Your task to perform on an android device: toggle improve location accuracy Image 0: 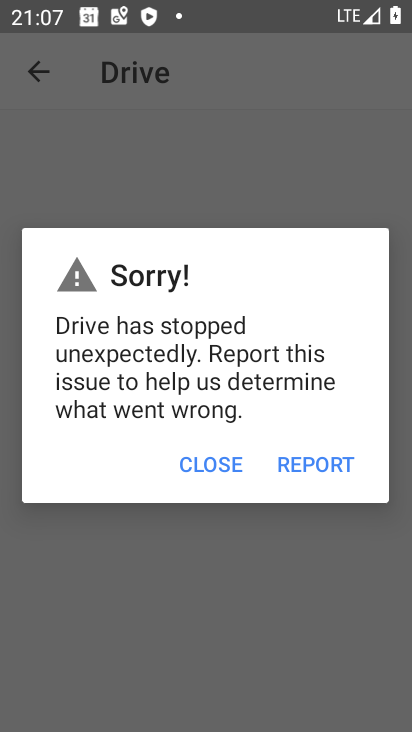
Step 0: press home button
Your task to perform on an android device: toggle improve location accuracy Image 1: 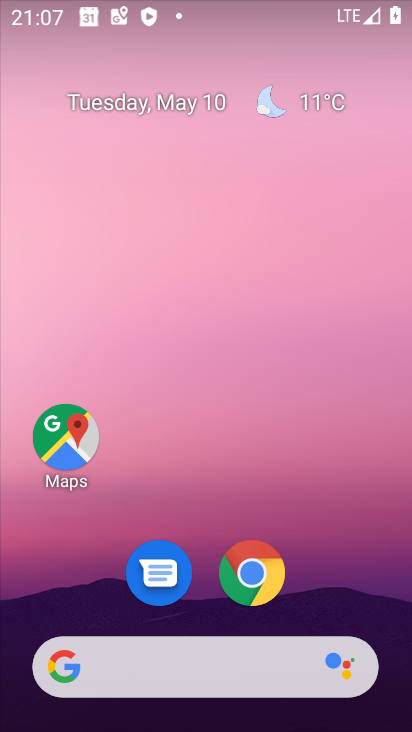
Step 1: drag from (371, 605) to (395, 10)
Your task to perform on an android device: toggle improve location accuracy Image 2: 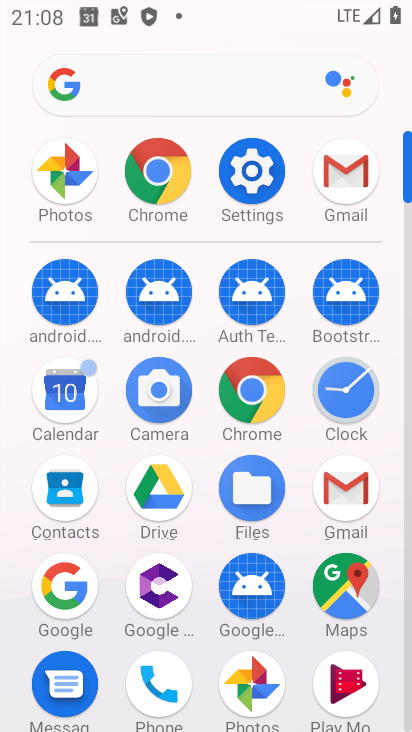
Step 2: click (253, 177)
Your task to perform on an android device: toggle improve location accuracy Image 3: 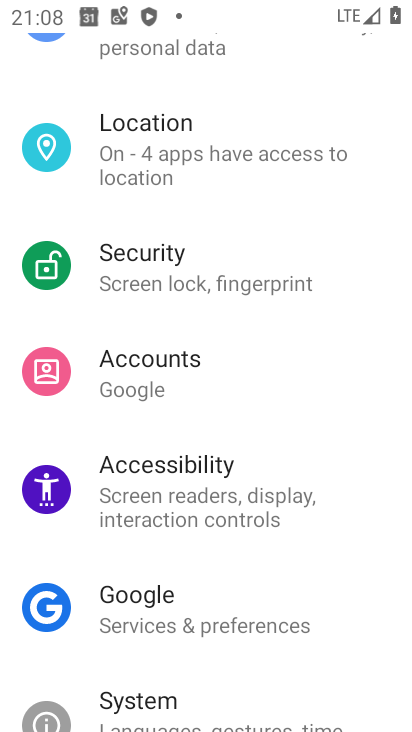
Step 3: click (125, 176)
Your task to perform on an android device: toggle improve location accuracy Image 4: 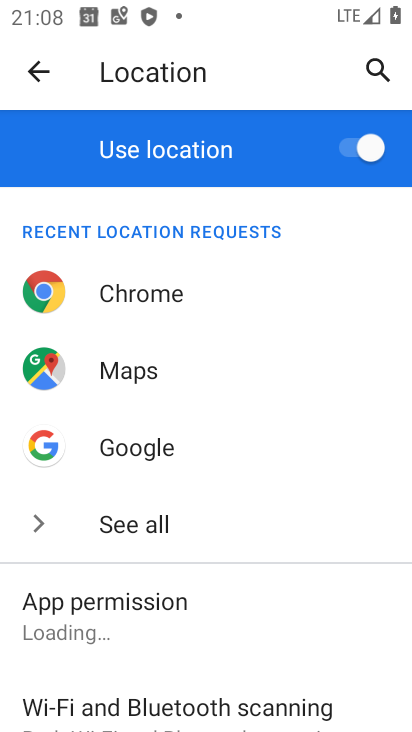
Step 4: drag from (230, 582) to (230, 232)
Your task to perform on an android device: toggle improve location accuracy Image 5: 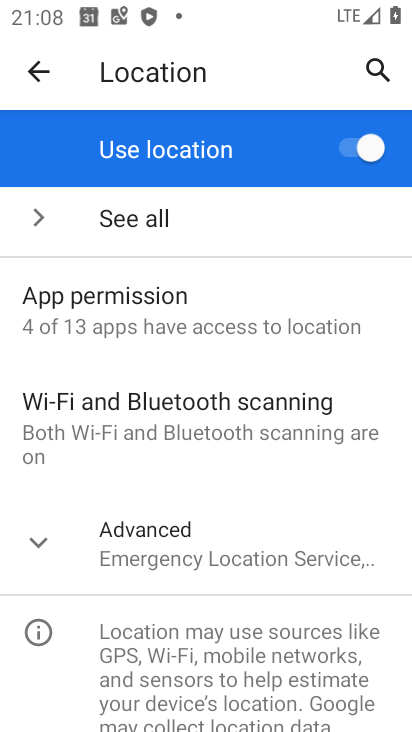
Step 5: click (42, 555)
Your task to perform on an android device: toggle improve location accuracy Image 6: 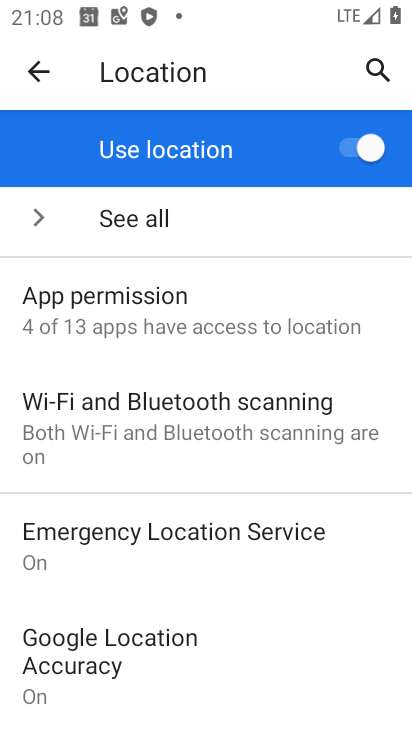
Step 6: drag from (218, 641) to (211, 398)
Your task to perform on an android device: toggle improve location accuracy Image 7: 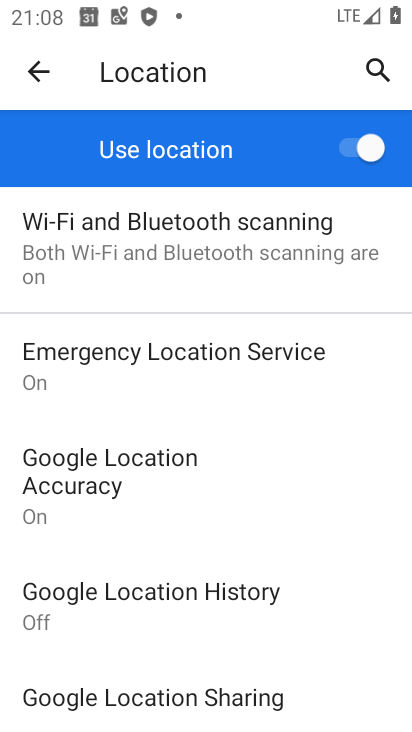
Step 7: click (109, 490)
Your task to perform on an android device: toggle improve location accuracy Image 8: 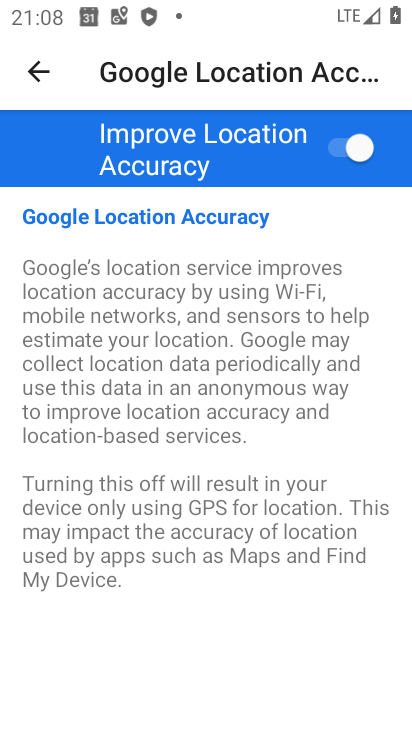
Step 8: click (350, 157)
Your task to perform on an android device: toggle improve location accuracy Image 9: 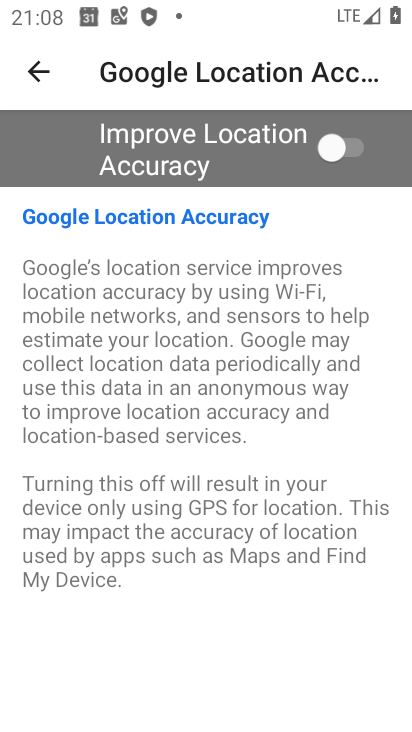
Step 9: task complete